Your task to perform on an android device: Open accessibility settings Image 0: 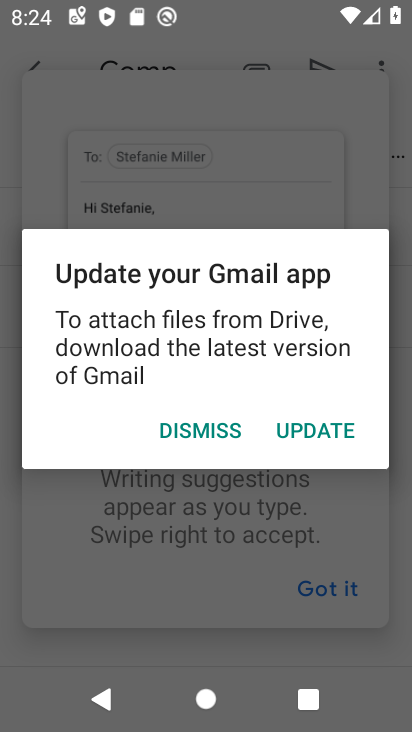
Step 0: press home button
Your task to perform on an android device: Open accessibility settings Image 1: 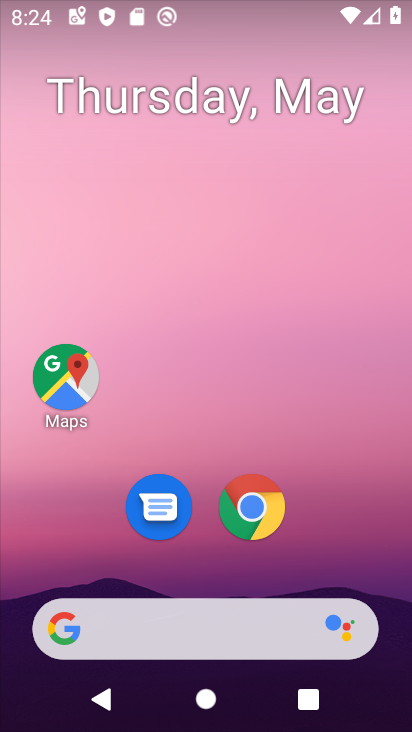
Step 1: drag from (343, 555) to (325, 41)
Your task to perform on an android device: Open accessibility settings Image 2: 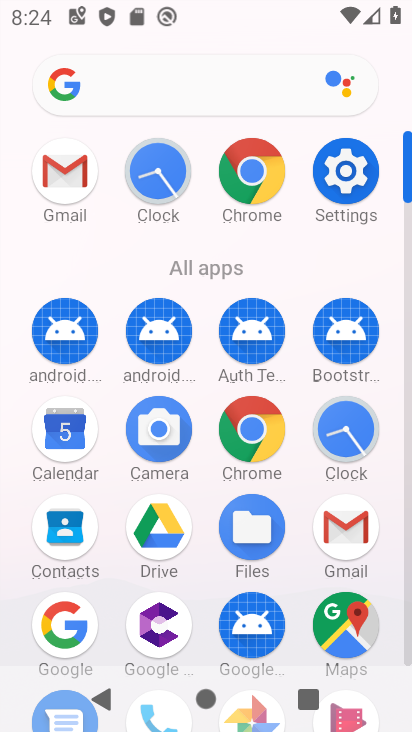
Step 2: click (343, 166)
Your task to perform on an android device: Open accessibility settings Image 3: 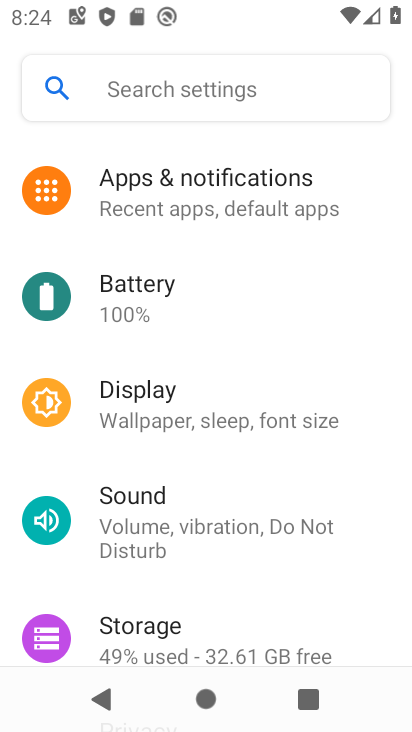
Step 3: drag from (342, 515) to (321, 199)
Your task to perform on an android device: Open accessibility settings Image 4: 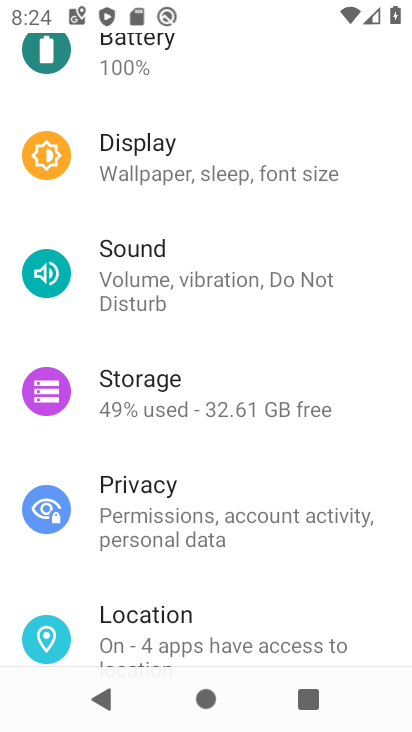
Step 4: drag from (346, 567) to (346, 190)
Your task to perform on an android device: Open accessibility settings Image 5: 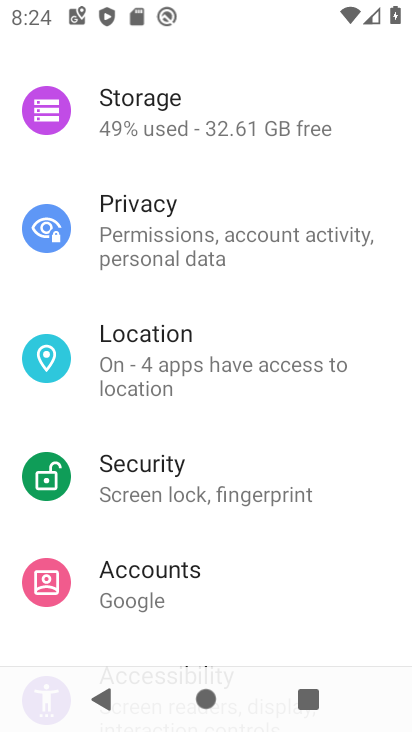
Step 5: drag from (330, 563) to (342, 142)
Your task to perform on an android device: Open accessibility settings Image 6: 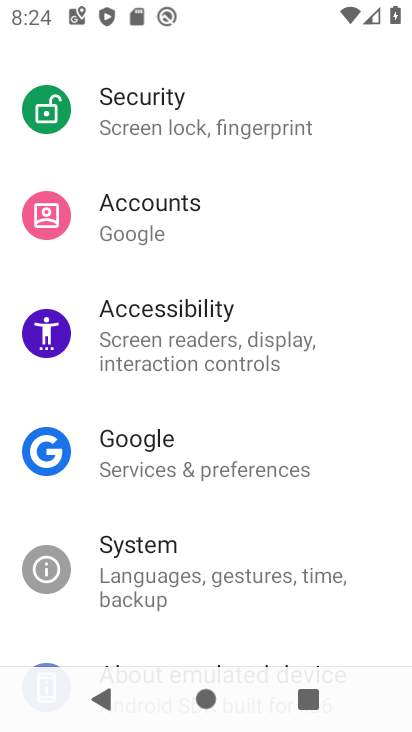
Step 6: click (202, 353)
Your task to perform on an android device: Open accessibility settings Image 7: 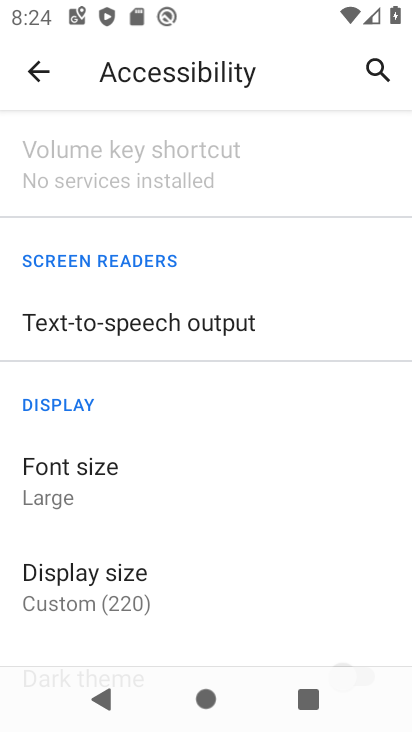
Step 7: task complete